Your task to perform on an android device: open chrome privacy settings Image 0: 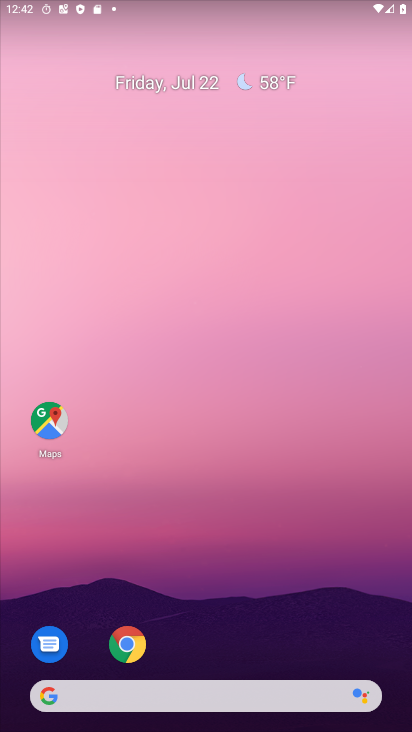
Step 0: drag from (201, 612) to (209, 110)
Your task to perform on an android device: open chrome privacy settings Image 1: 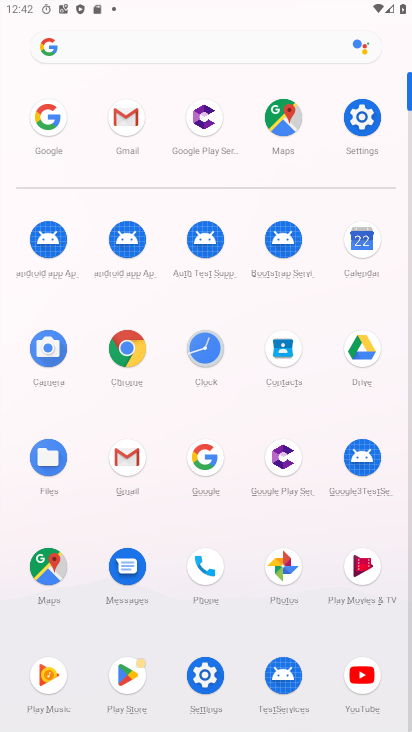
Step 1: click (127, 355)
Your task to perform on an android device: open chrome privacy settings Image 2: 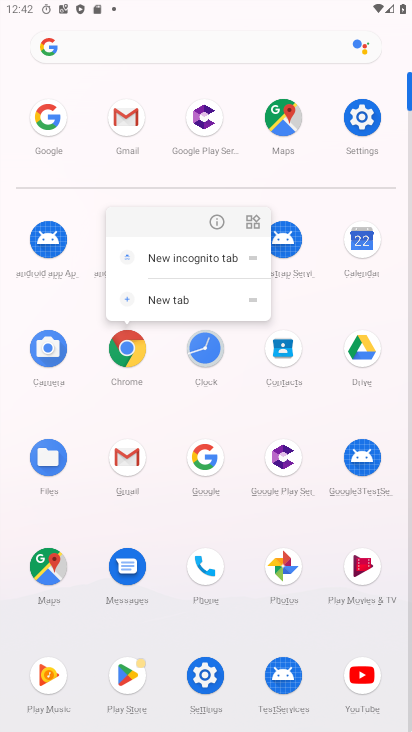
Step 2: click (221, 225)
Your task to perform on an android device: open chrome privacy settings Image 3: 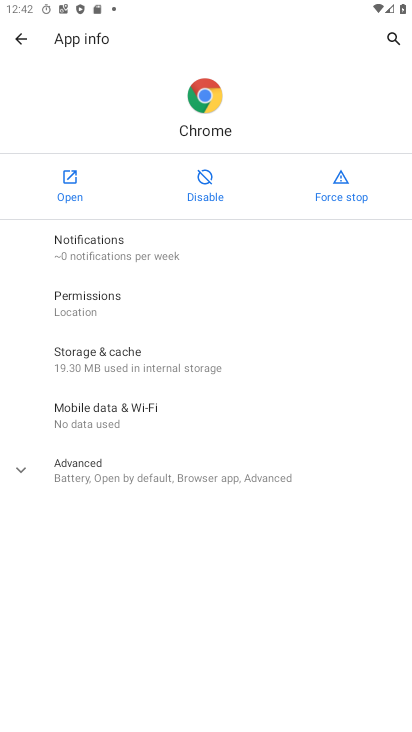
Step 3: click (78, 167)
Your task to perform on an android device: open chrome privacy settings Image 4: 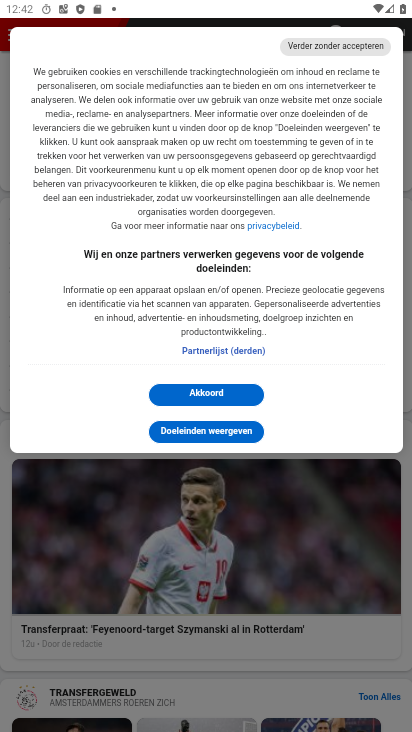
Step 4: drag from (300, 169) to (308, 461)
Your task to perform on an android device: open chrome privacy settings Image 5: 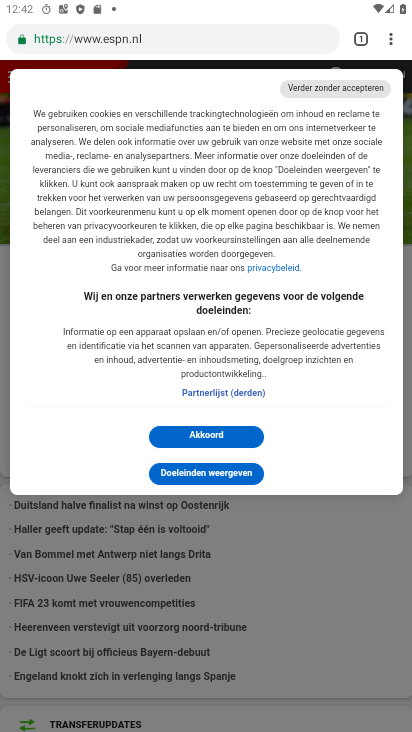
Step 5: drag from (393, 31) to (276, 513)
Your task to perform on an android device: open chrome privacy settings Image 6: 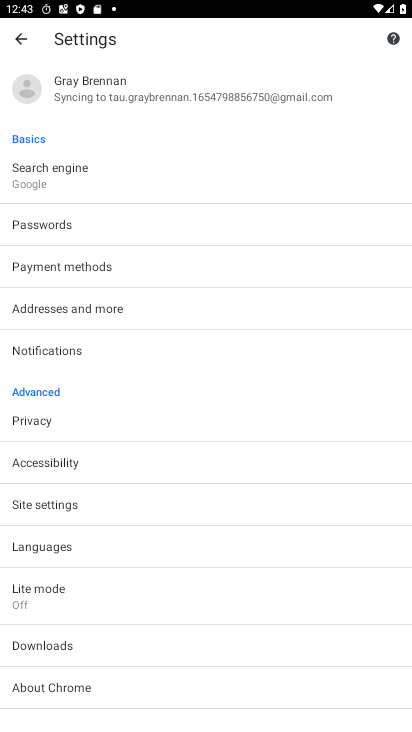
Step 6: click (79, 429)
Your task to perform on an android device: open chrome privacy settings Image 7: 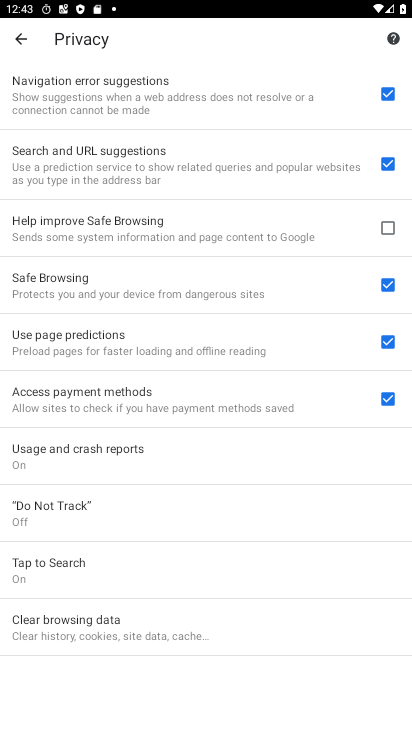
Step 7: task complete